Your task to perform on an android device: visit the assistant section in the google photos Image 0: 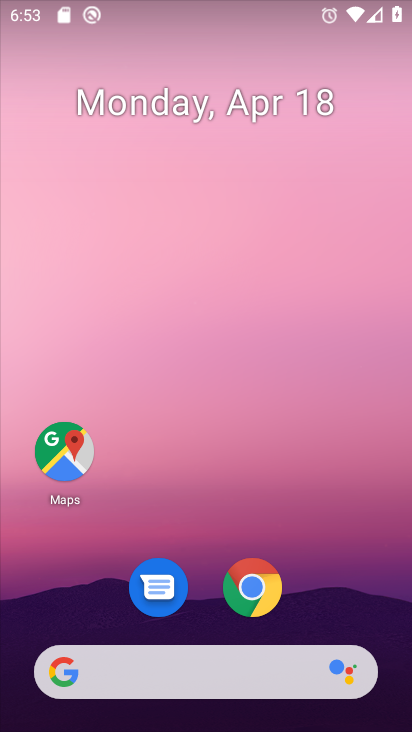
Step 0: click (334, 597)
Your task to perform on an android device: visit the assistant section in the google photos Image 1: 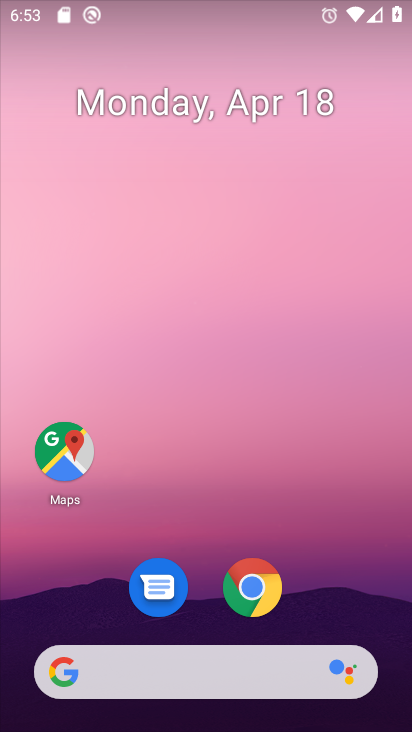
Step 1: drag from (317, 596) to (317, 69)
Your task to perform on an android device: visit the assistant section in the google photos Image 2: 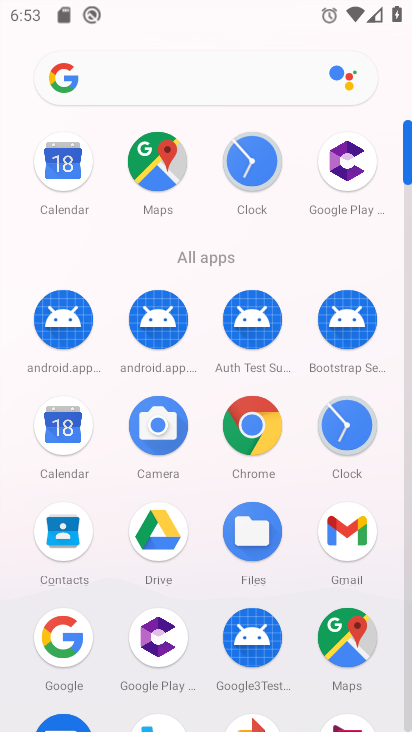
Step 2: click (251, 718)
Your task to perform on an android device: visit the assistant section in the google photos Image 3: 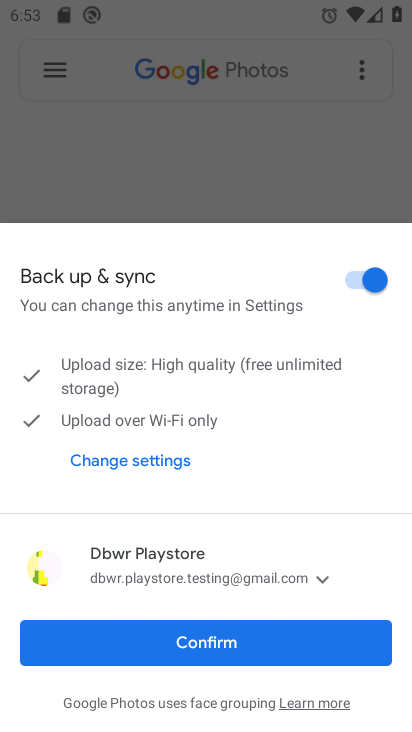
Step 3: click (246, 649)
Your task to perform on an android device: visit the assistant section in the google photos Image 4: 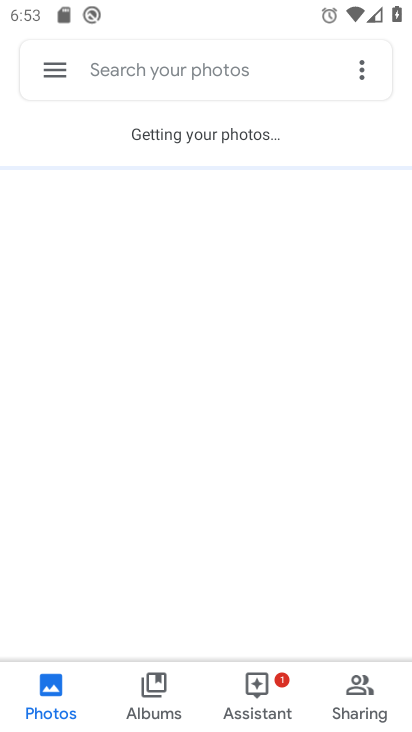
Step 4: click (253, 713)
Your task to perform on an android device: visit the assistant section in the google photos Image 5: 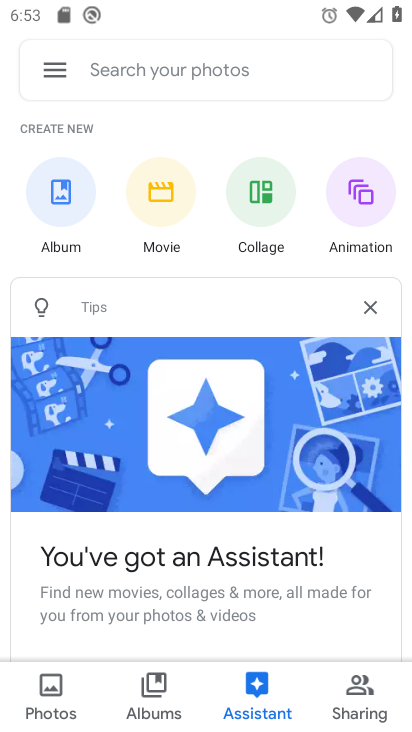
Step 5: task complete